Your task to perform on an android device: Open location settings Image 0: 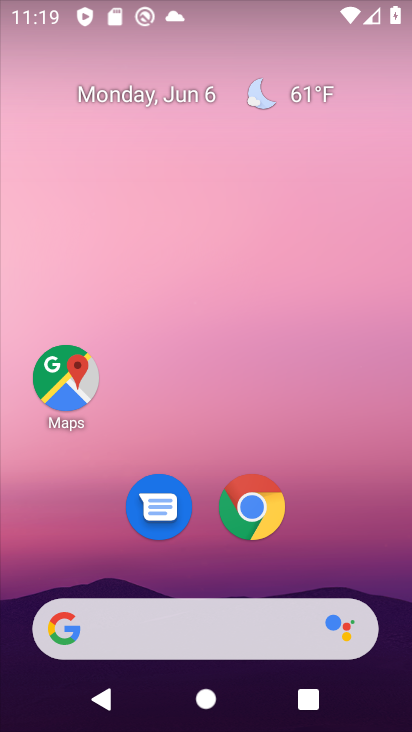
Step 0: drag from (192, 382) to (156, 117)
Your task to perform on an android device: Open location settings Image 1: 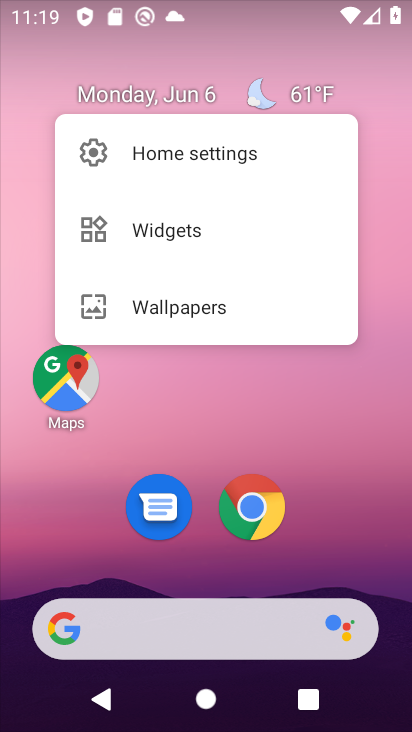
Step 1: click (303, 507)
Your task to perform on an android device: Open location settings Image 2: 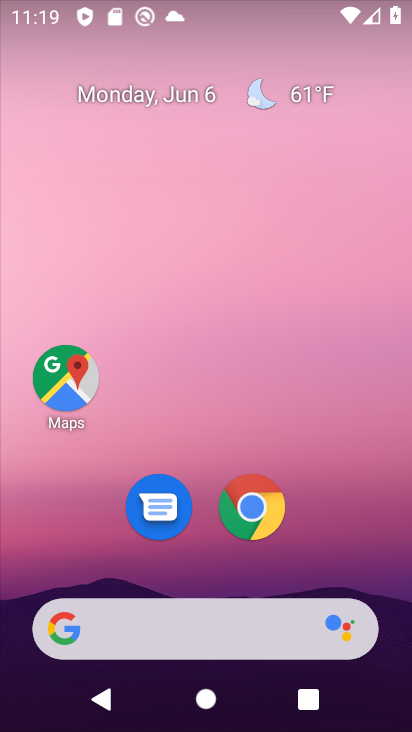
Step 2: drag from (230, 559) to (190, 134)
Your task to perform on an android device: Open location settings Image 3: 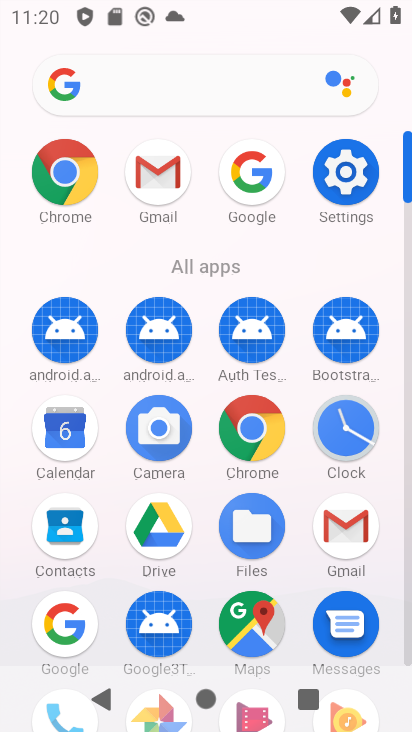
Step 3: click (347, 170)
Your task to perform on an android device: Open location settings Image 4: 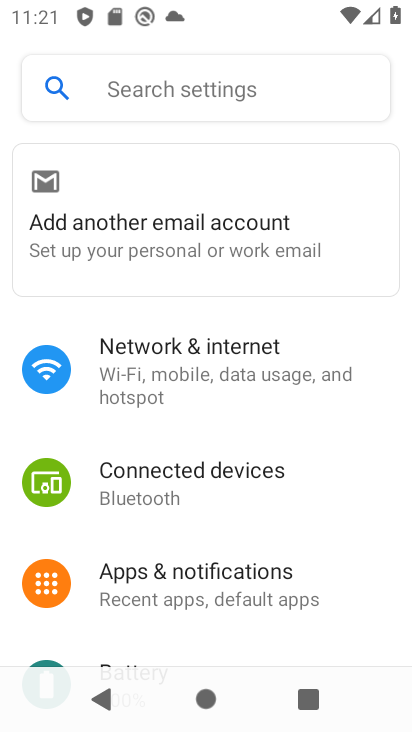
Step 4: task complete